Your task to perform on an android device: add a contact in the contacts app Image 0: 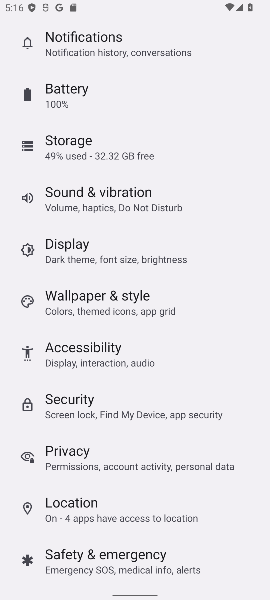
Step 0: press home button
Your task to perform on an android device: add a contact in the contacts app Image 1: 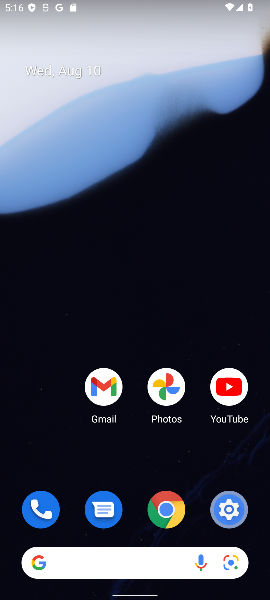
Step 1: drag from (152, 457) to (159, 126)
Your task to perform on an android device: add a contact in the contacts app Image 2: 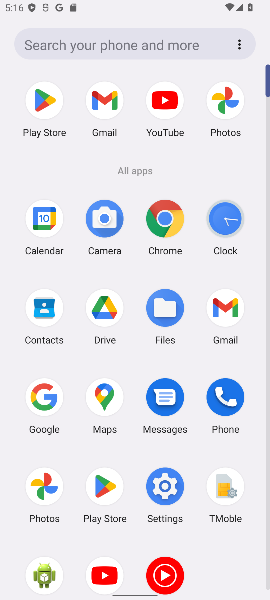
Step 2: click (29, 311)
Your task to perform on an android device: add a contact in the contacts app Image 3: 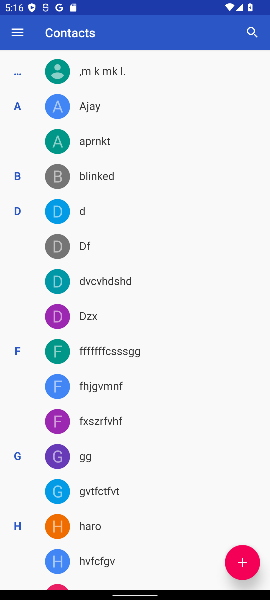
Step 3: click (250, 560)
Your task to perform on an android device: add a contact in the contacts app Image 4: 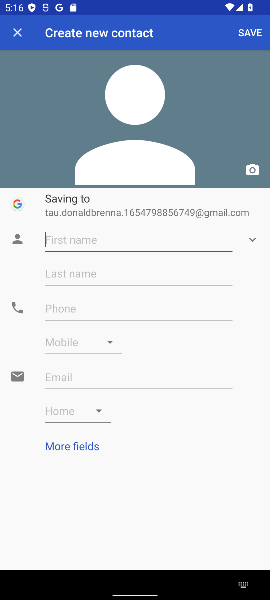
Step 4: type "hlmj"
Your task to perform on an android device: add a contact in the contacts app Image 5: 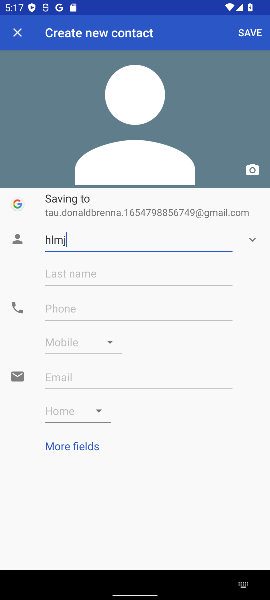
Step 5: click (252, 27)
Your task to perform on an android device: add a contact in the contacts app Image 6: 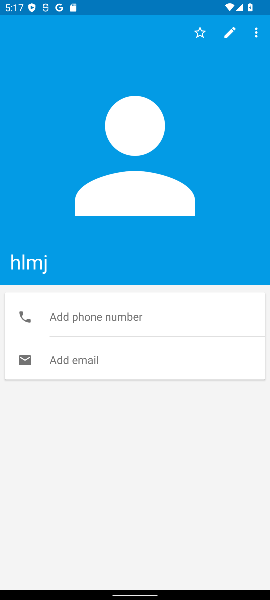
Step 6: task complete